Your task to perform on an android device: What's the weather today? Image 0: 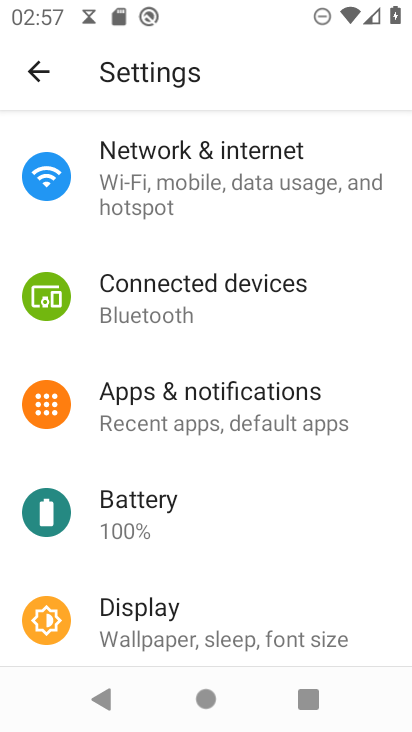
Step 0: press home button
Your task to perform on an android device: What's the weather today? Image 1: 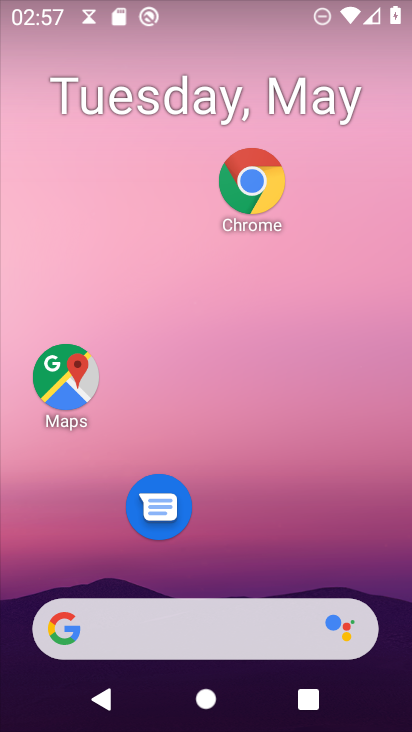
Step 1: drag from (248, 544) to (284, 300)
Your task to perform on an android device: What's the weather today? Image 2: 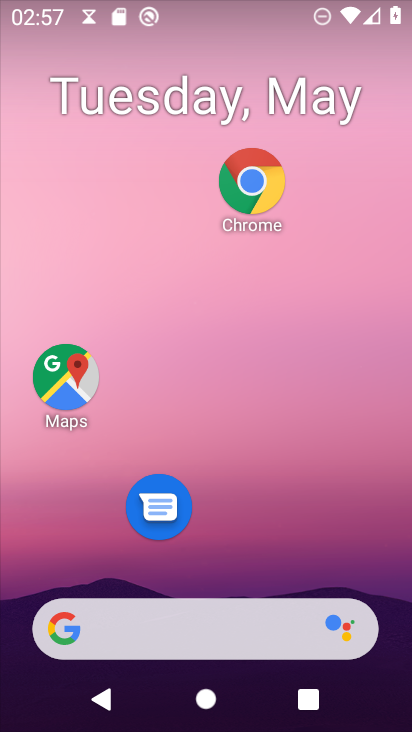
Step 2: drag from (275, 548) to (297, 224)
Your task to perform on an android device: What's the weather today? Image 3: 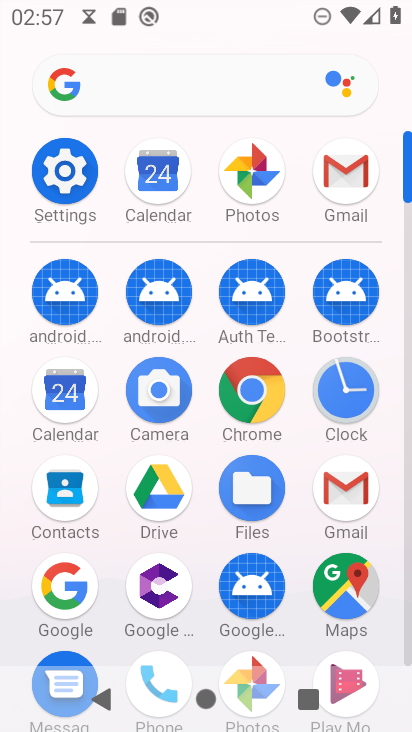
Step 3: click (251, 387)
Your task to perform on an android device: What's the weather today? Image 4: 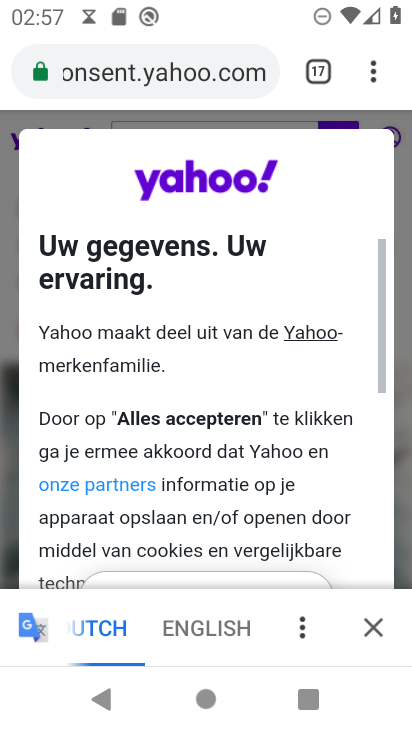
Step 4: click (364, 70)
Your task to perform on an android device: What's the weather today? Image 5: 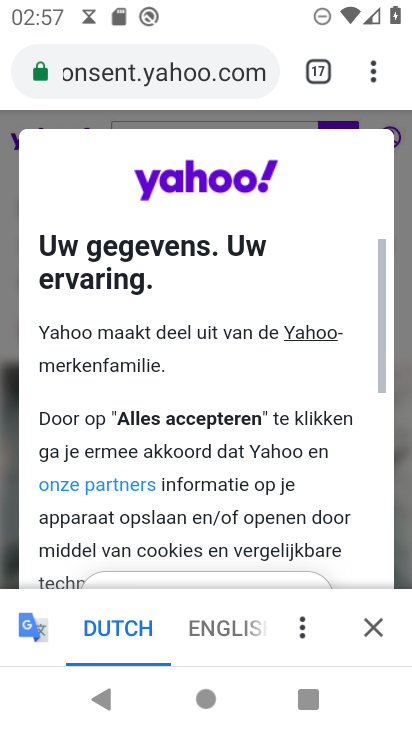
Step 5: click (372, 68)
Your task to perform on an android device: What's the weather today? Image 6: 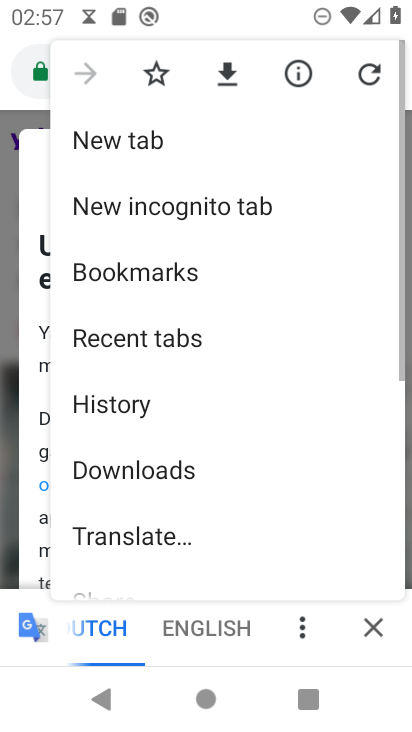
Step 6: click (165, 131)
Your task to perform on an android device: What's the weather today? Image 7: 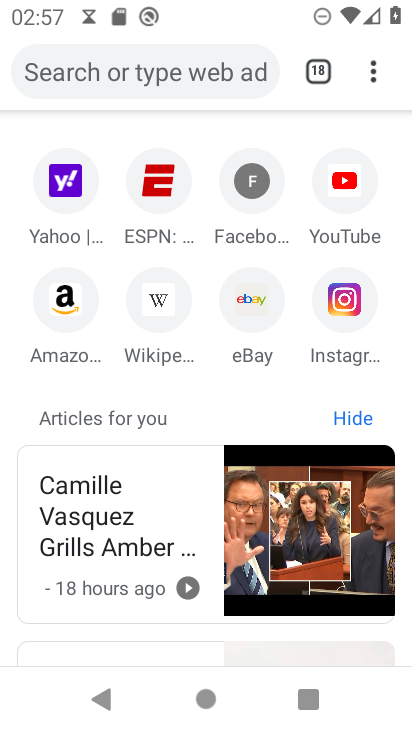
Step 7: click (85, 63)
Your task to perform on an android device: What's the weather today? Image 8: 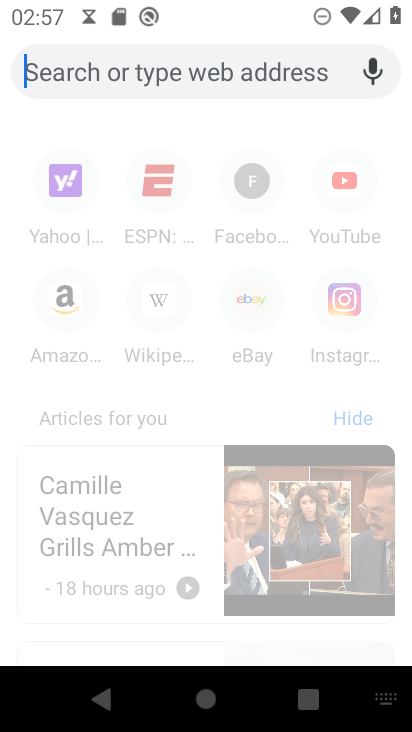
Step 8: type "What's the weather today?"
Your task to perform on an android device: What's the weather today? Image 9: 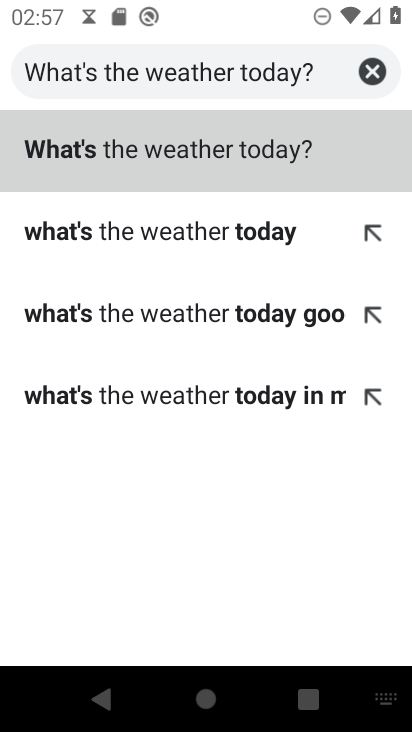
Step 9: click (222, 149)
Your task to perform on an android device: What's the weather today? Image 10: 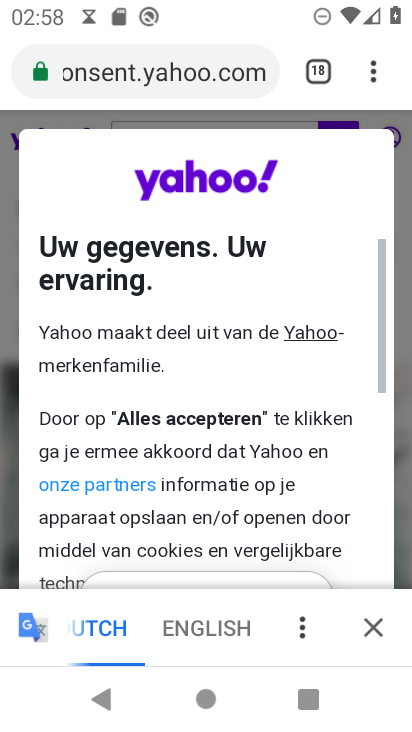
Step 10: task complete